Your task to perform on an android device: Go to CNN.com Image 0: 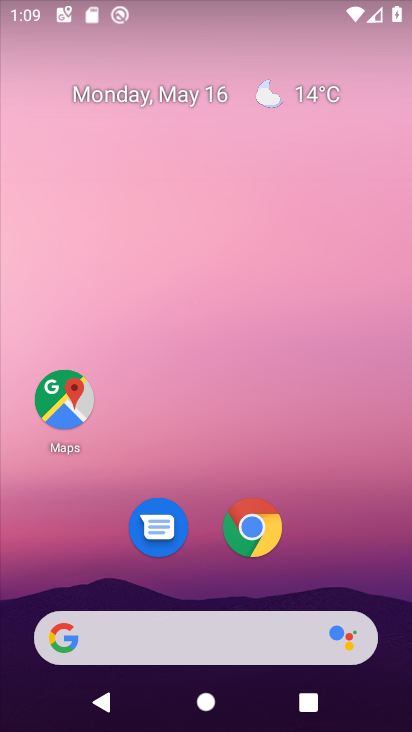
Step 0: click (260, 543)
Your task to perform on an android device: Go to CNN.com Image 1: 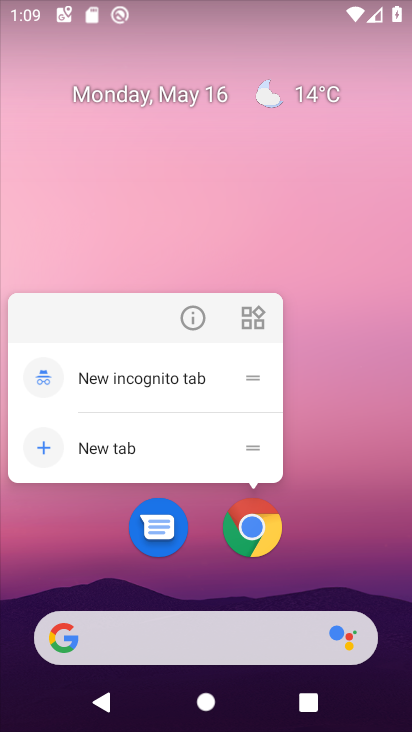
Step 1: click (260, 526)
Your task to perform on an android device: Go to CNN.com Image 2: 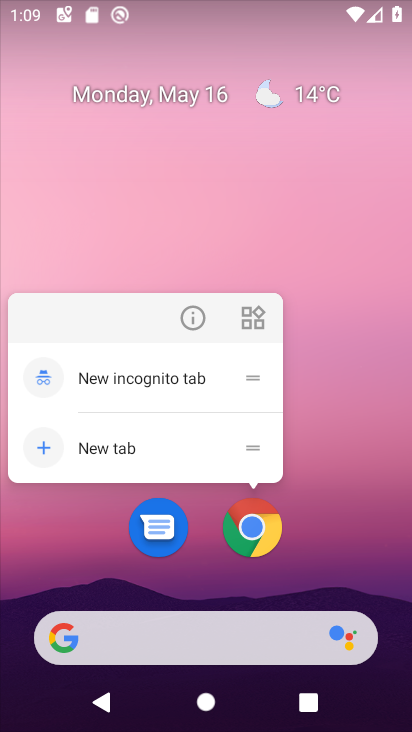
Step 2: click (258, 527)
Your task to perform on an android device: Go to CNN.com Image 3: 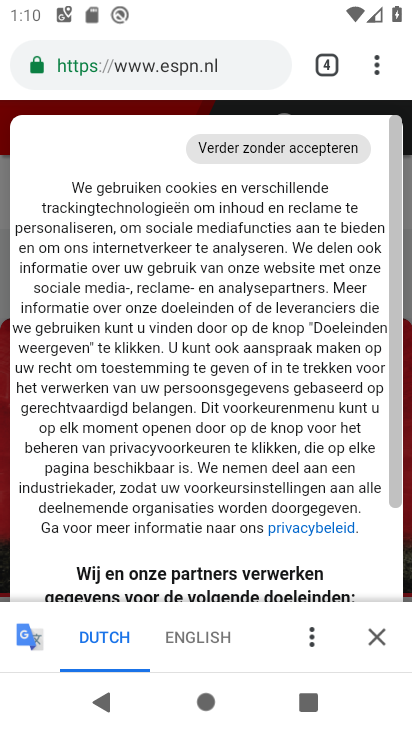
Step 3: type "CNN.com"
Your task to perform on an android device: Go to CNN.com Image 4: 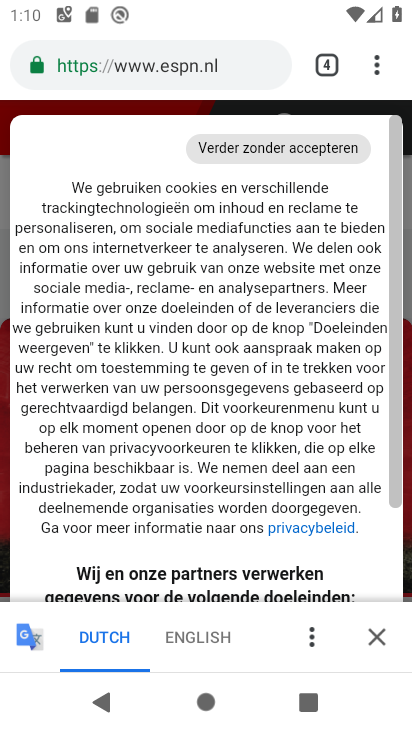
Step 4: drag from (168, 63) to (236, 69)
Your task to perform on an android device: Go to CNN.com Image 5: 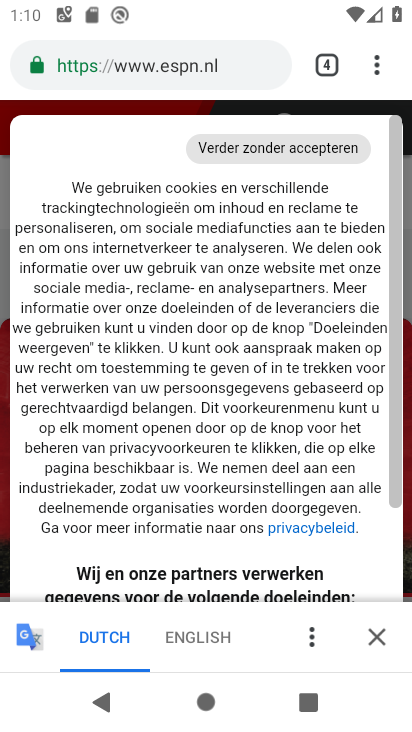
Step 5: click (223, 67)
Your task to perform on an android device: Go to CNN.com Image 6: 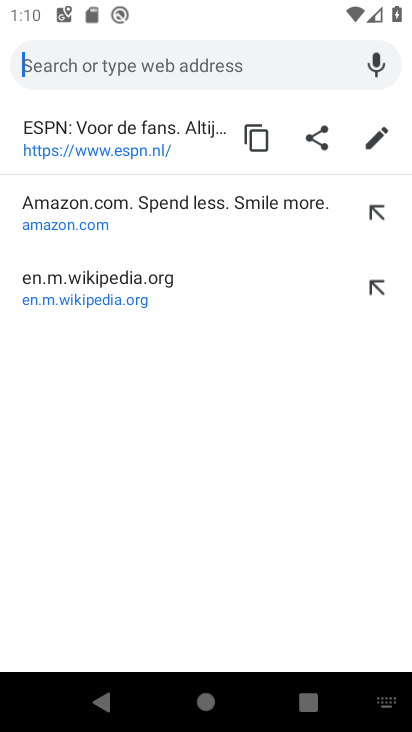
Step 6: type "CNN.com"
Your task to perform on an android device: Go to CNN.com Image 7: 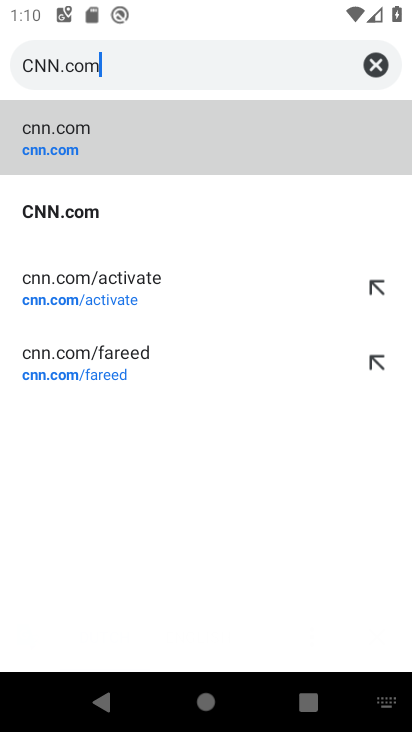
Step 7: click (105, 217)
Your task to perform on an android device: Go to CNN.com Image 8: 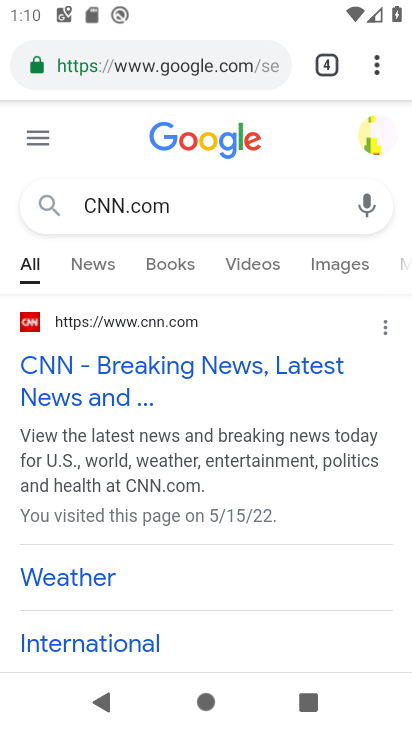
Step 8: task complete